Your task to perform on an android device: Checkthe settings for the Amazon Prime Music app Image 0: 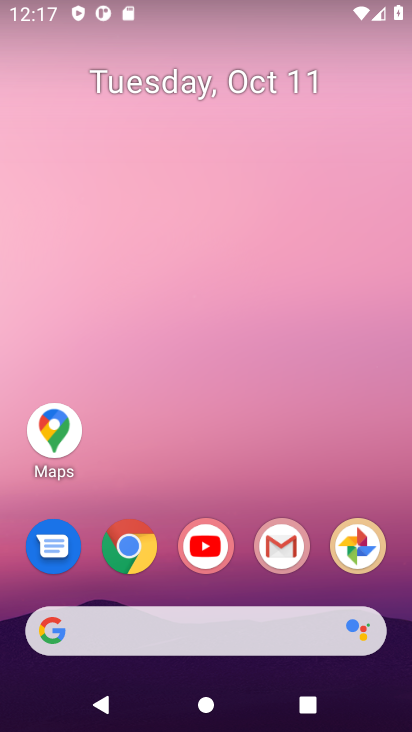
Step 0: drag from (196, 610) to (190, 307)
Your task to perform on an android device: Checkthe settings for the Amazon Prime Music app Image 1: 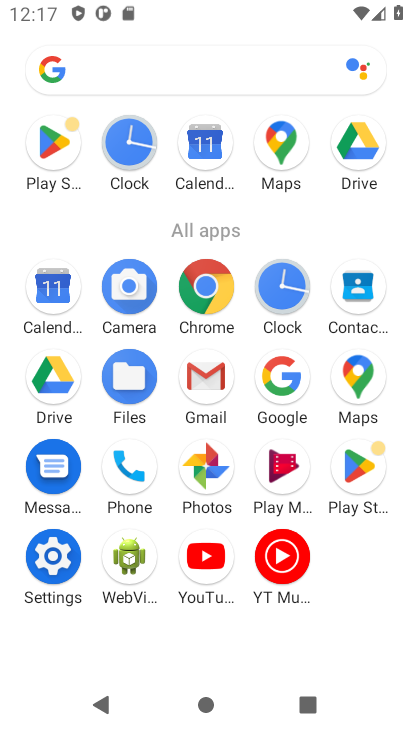
Step 1: click (52, 562)
Your task to perform on an android device: Checkthe settings for the Amazon Prime Music app Image 2: 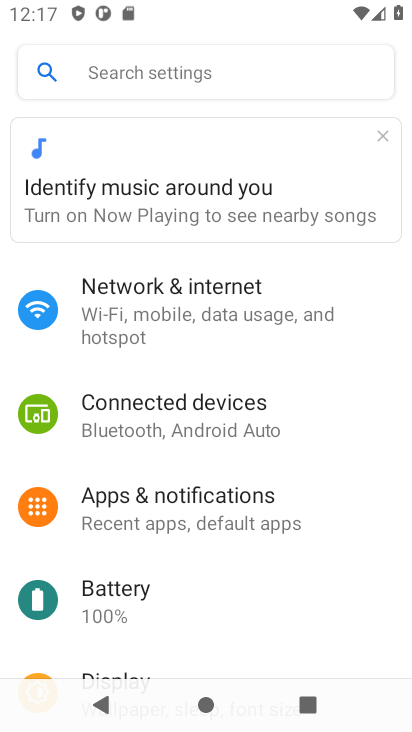
Step 2: click (209, 526)
Your task to perform on an android device: Checkthe settings for the Amazon Prime Music app Image 3: 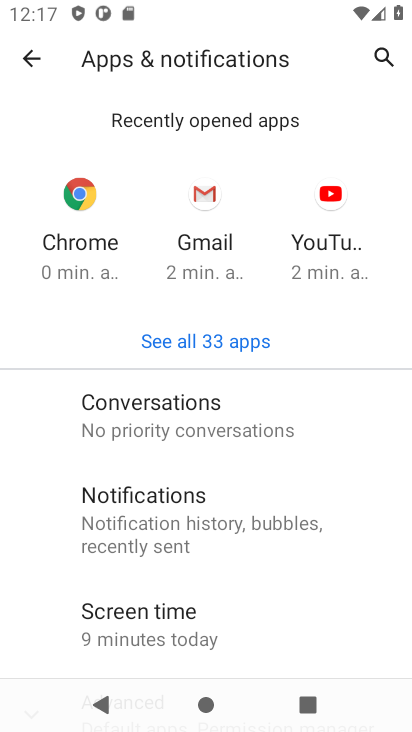
Step 3: click (215, 338)
Your task to perform on an android device: Checkthe settings for the Amazon Prime Music app Image 4: 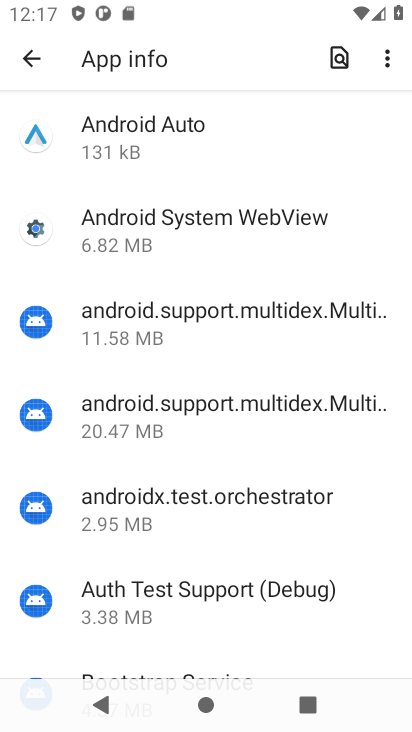
Step 4: task complete